Your task to perform on an android device: toggle sleep mode Image 0: 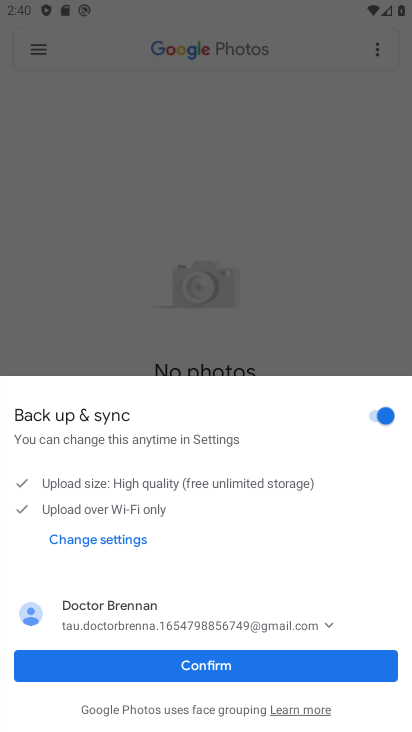
Step 0: press home button
Your task to perform on an android device: toggle sleep mode Image 1: 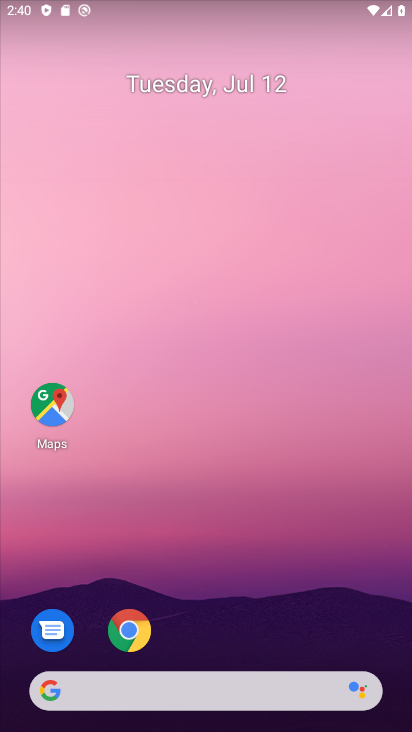
Step 1: drag from (184, 631) to (226, 1)
Your task to perform on an android device: toggle sleep mode Image 2: 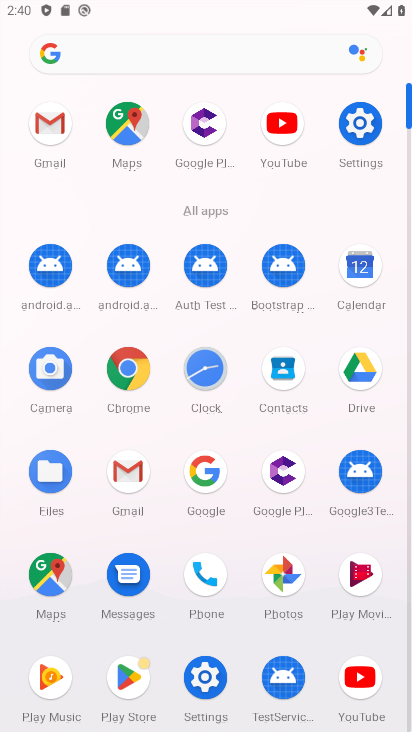
Step 2: click (359, 146)
Your task to perform on an android device: toggle sleep mode Image 3: 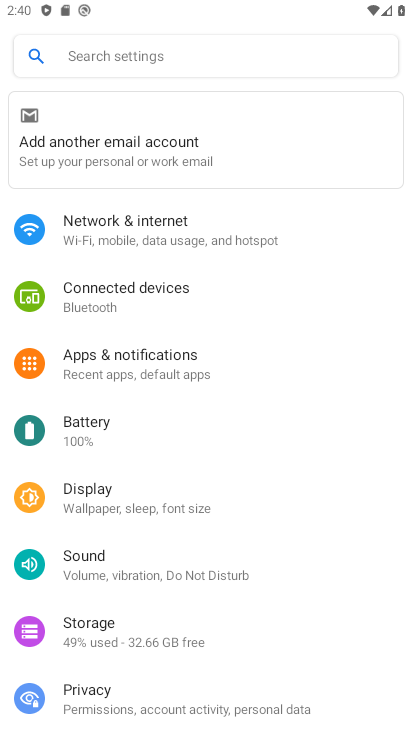
Step 3: click (155, 507)
Your task to perform on an android device: toggle sleep mode Image 4: 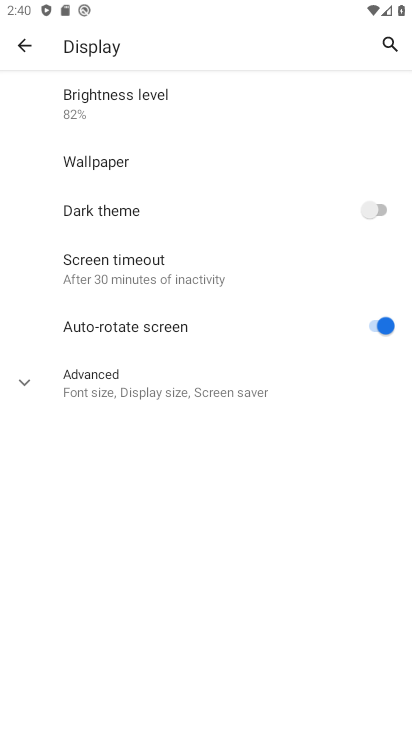
Step 4: click (131, 266)
Your task to perform on an android device: toggle sleep mode Image 5: 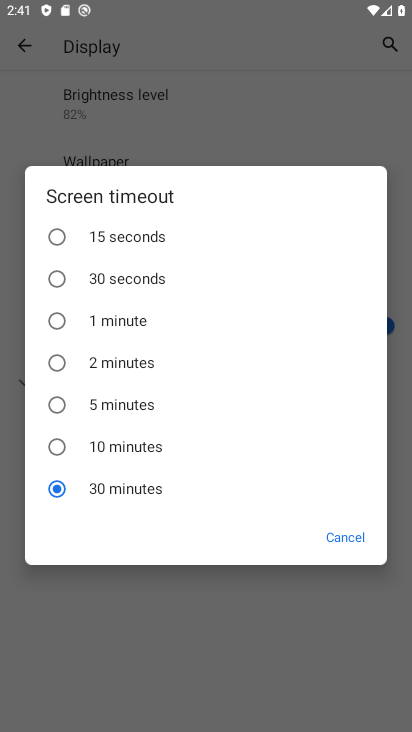
Step 5: task complete